Your task to perform on an android device: Open internet settings Image 0: 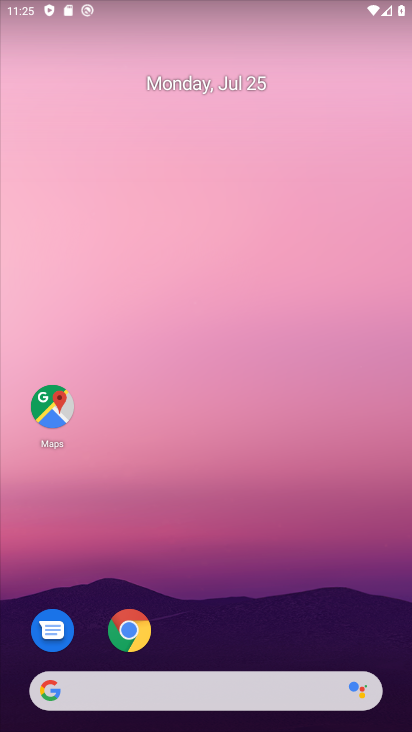
Step 0: click (296, 254)
Your task to perform on an android device: Open internet settings Image 1: 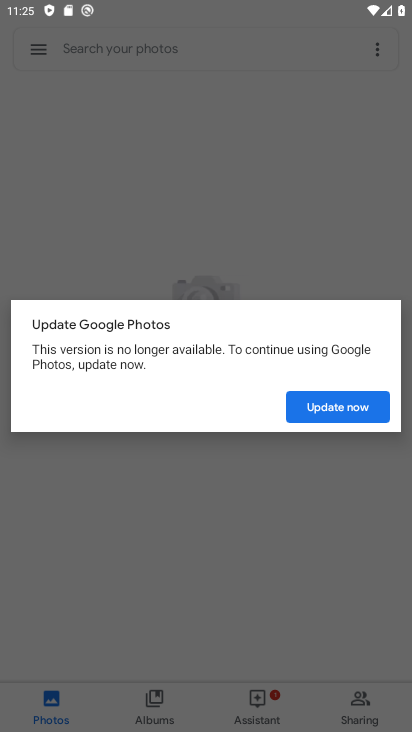
Step 1: drag from (313, 420) to (363, 134)
Your task to perform on an android device: Open internet settings Image 2: 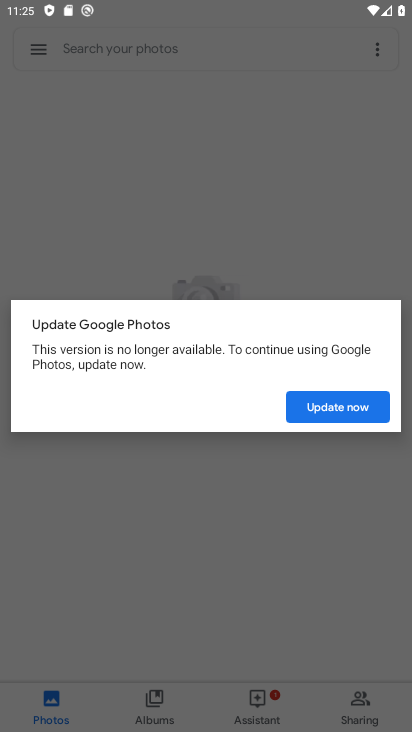
Step 2: drag from (365, 468) to (391, 216)
Your task to perform on an android device: Open internet settings Image 3: 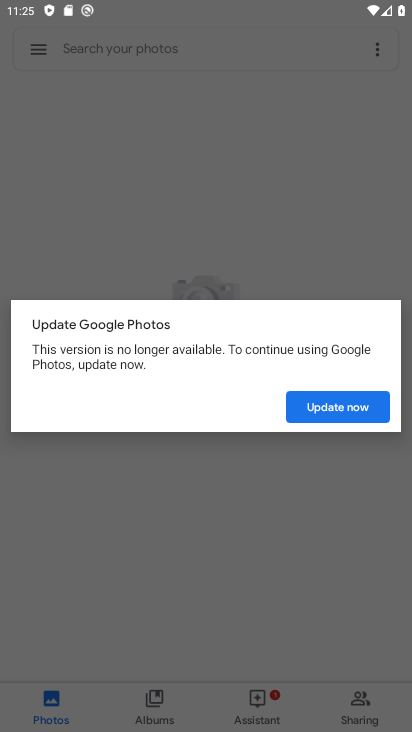
Step 3: click (351, 156)
Your task to perform on an android device: Open internet settings Image 4: 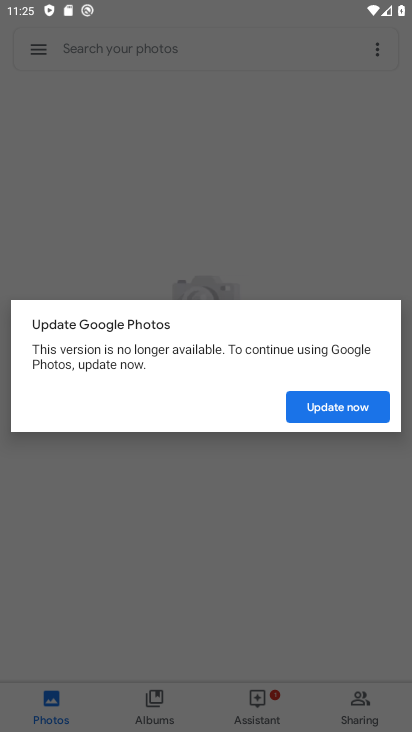
Step 4: click (350, 158)
Your task to perform on an android device: Open internet settings Image 5: 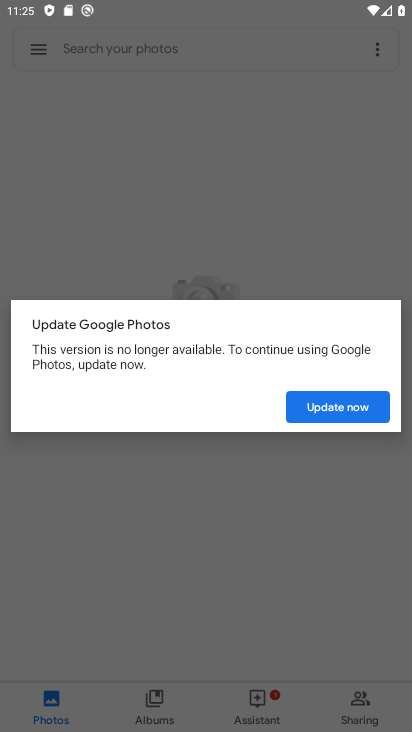
Step 5: click (338, 393)
Your task to perform on an android device: Open internet settings Image 6: 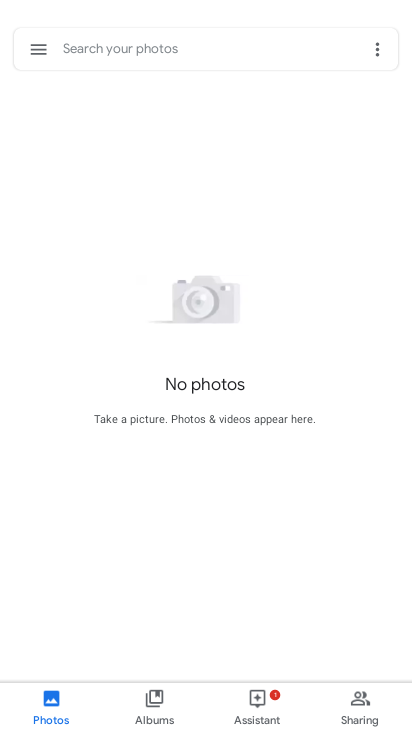
Step 6: click (339, 400)
Your task to perform on an android device: Open internet settings Image 7: 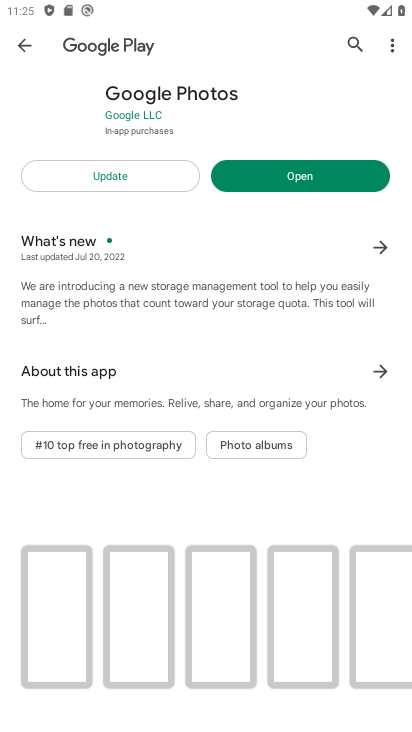
Step 7: press back button
Your task to perform on an android device: Open internet settings Image 8: 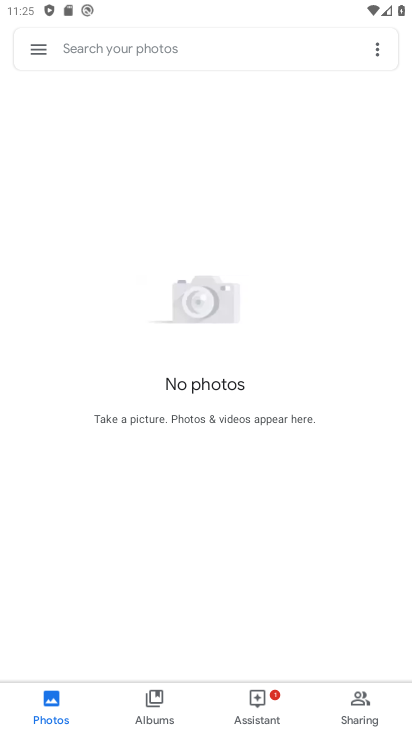
Step 8: click (29, 30)
Your task to perform on an android device: Open internet settings Image 9: 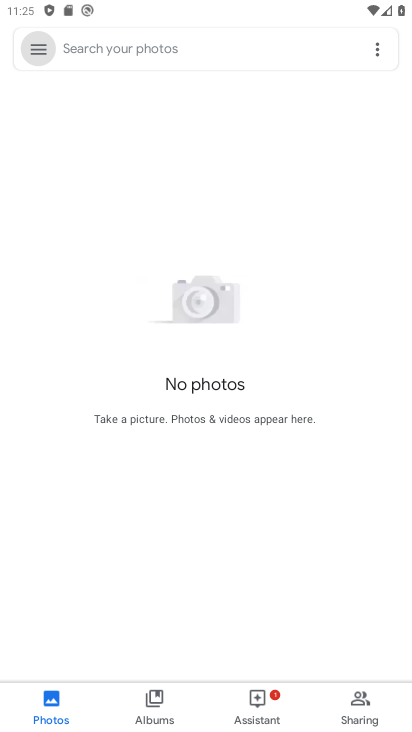
Step 9: click (23, 37)
Your task to perform on an android device: Open internet settings Image 10: 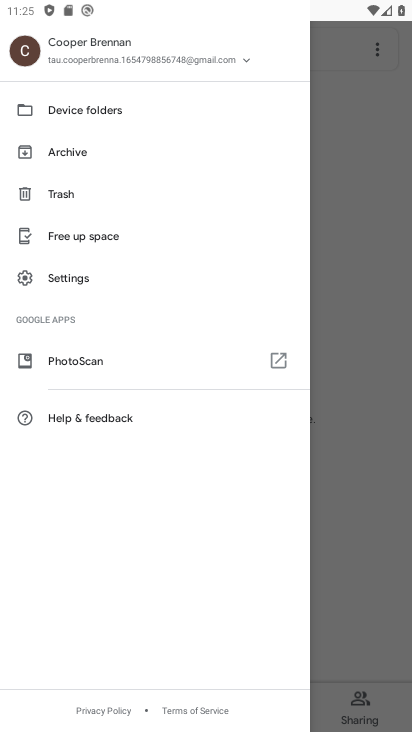
Step 10: click (23, 37)
Your task to perform on an android device: Open internet settings Image 11: 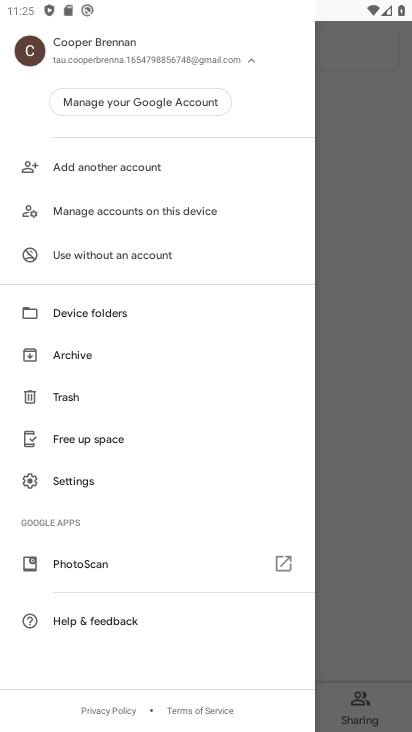
Step 11: press home button
Your task to perform on an android device: Open internet settings Image 12: 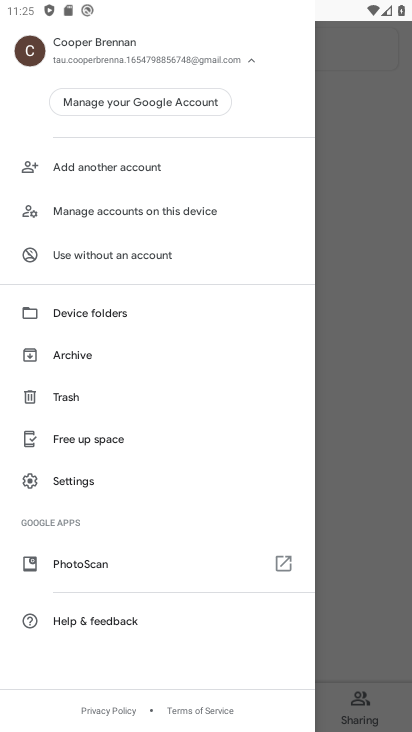
Step 12: press home button
Your task to perform on an android device: Open internet settings Image 13: 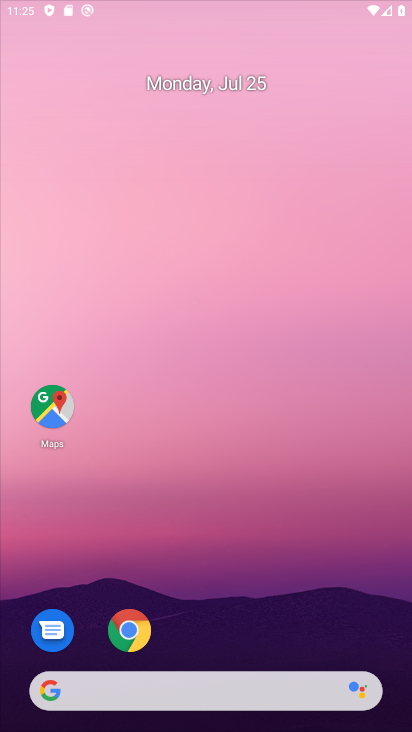
Step 13: press home button
Your task to perform on an android device: Open internet settings Image 14: 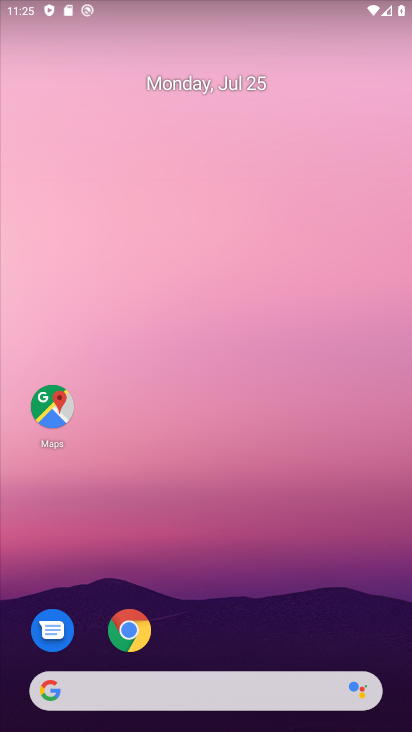
Step 14: drag from (228, 709) to (241, 226)
Your task to perform on an android device: Open internet settings Image 15: 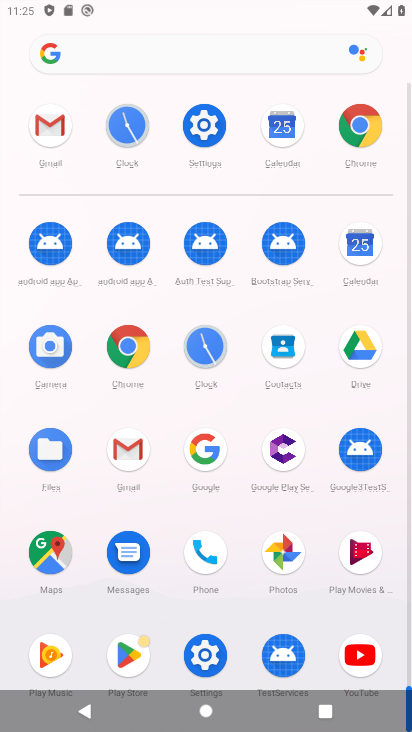
Step 15: click (190, 116)
Your task to perform on an android device: Open internet settings Image 16: 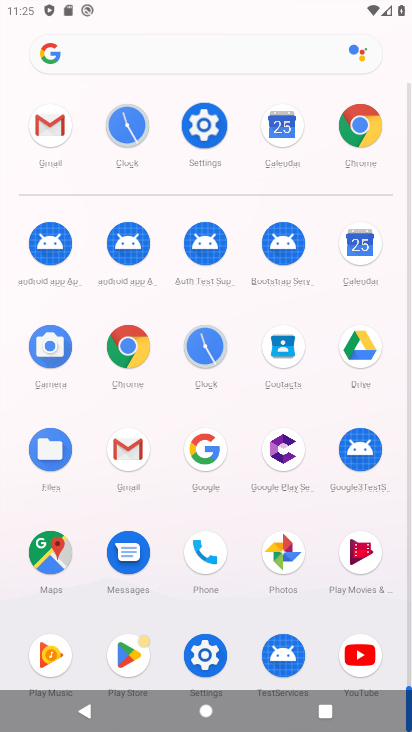
Step 16: click (195, 115)
Your task to perform on an android device: Open internet settings Image 17: 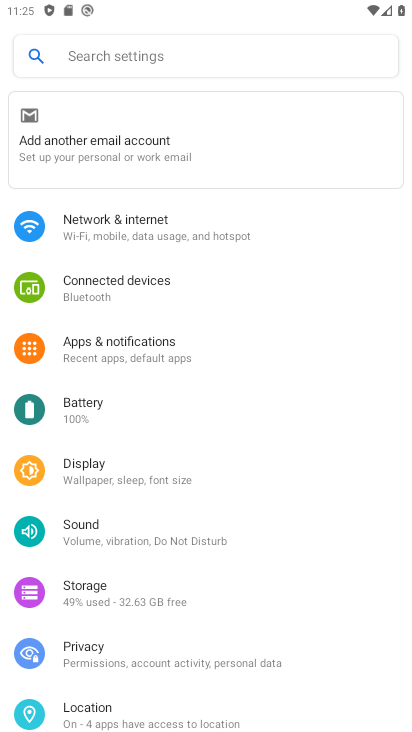
Step 17: click (134, 219)
Your task to perform on an android device: Open internet settings Image 18: 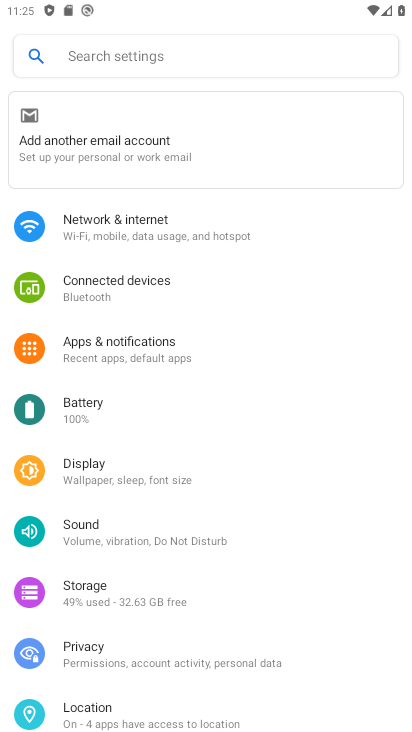
Step 18: click (137, 216)
Your task to perform on an android device: Open internet settings Image 19: 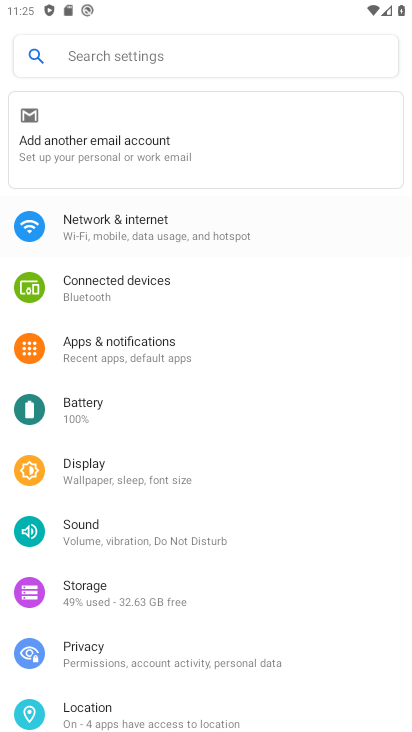
Step 19: click (143, 206)
Your task to perform on an android device: Open internet settings Image 20: 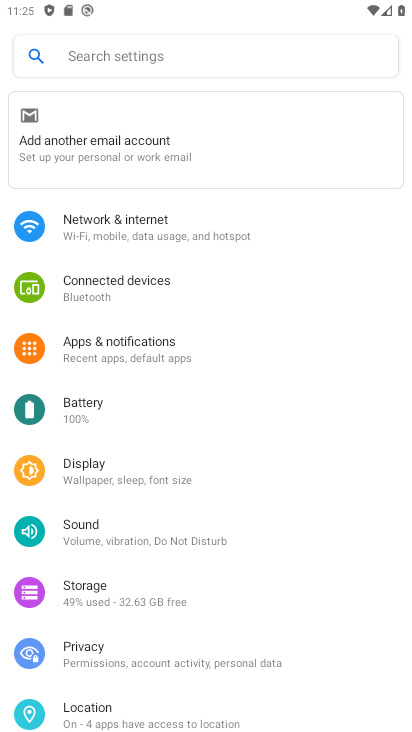
Step 20: click (148, 200)
Your task to perform on an android device: Open internet settings Image 21: 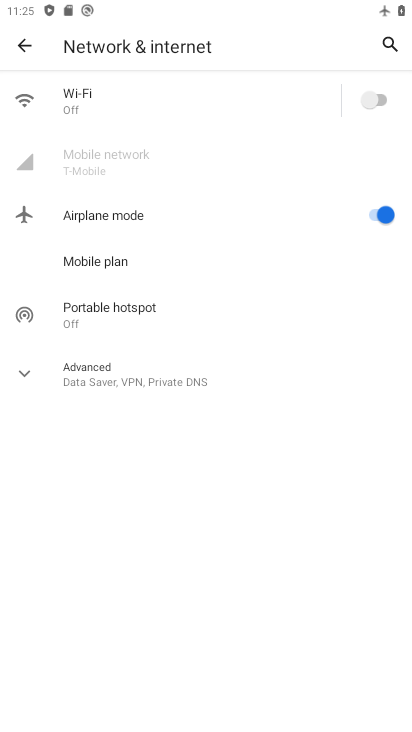
Step 21: task complete